Your task to perform on an android device: turn off location history Image 0: 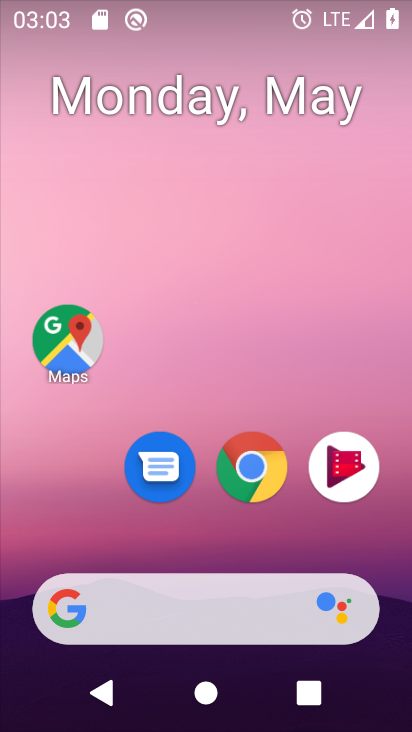
Step 0: drag from (254, 462) to (272, 63)
Your task to perform on an android device: turn off location history Image 1: 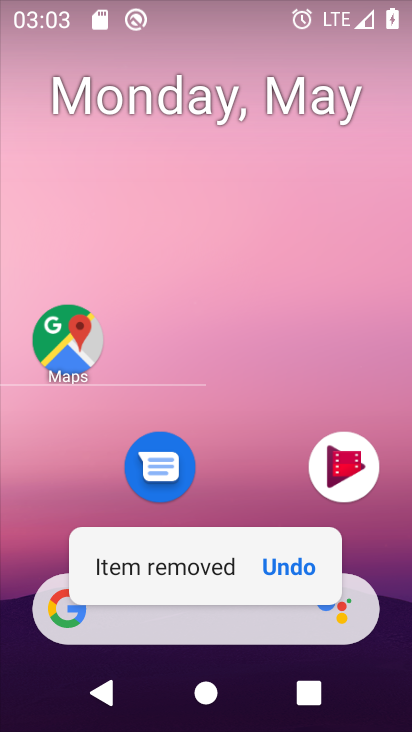
Step 1: click (232, 518)
Your task to perform on an android device: turn off location history Image 2: 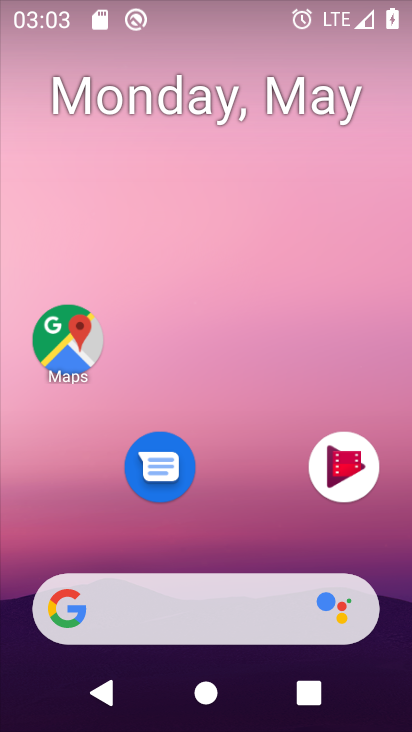
Step 2: click (245, 483)
Your task to perform on an android device: turn off location history Image 3: 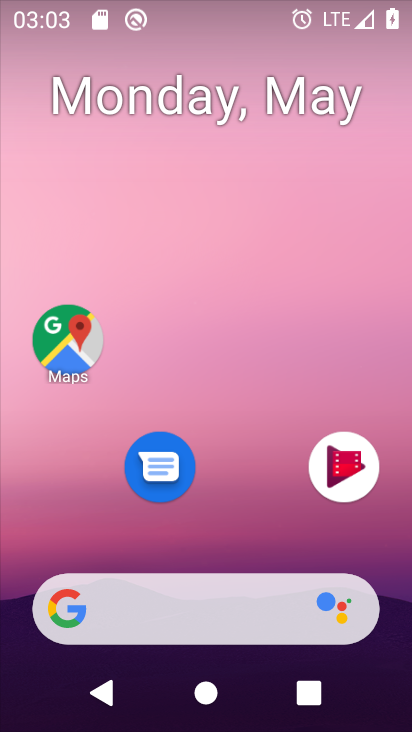
Step 3: drag from (256, 494) to (299, 82)
Your task to perform on an android device: turn off location history Image 4: 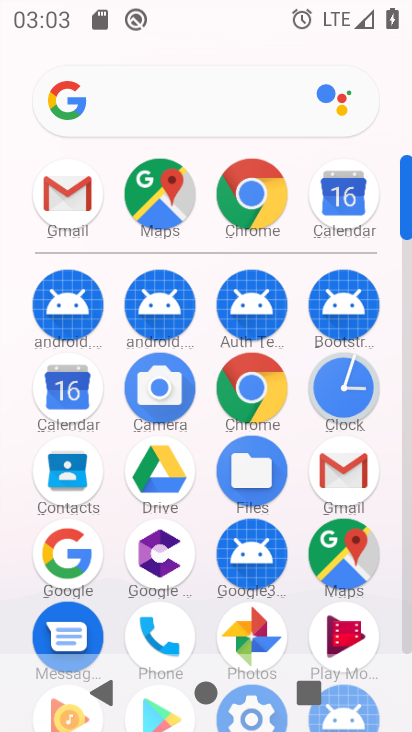
Step 4: drag from (224, 576) to (301, 166)
Your task to perform on an android device: turn off location history Image 5: 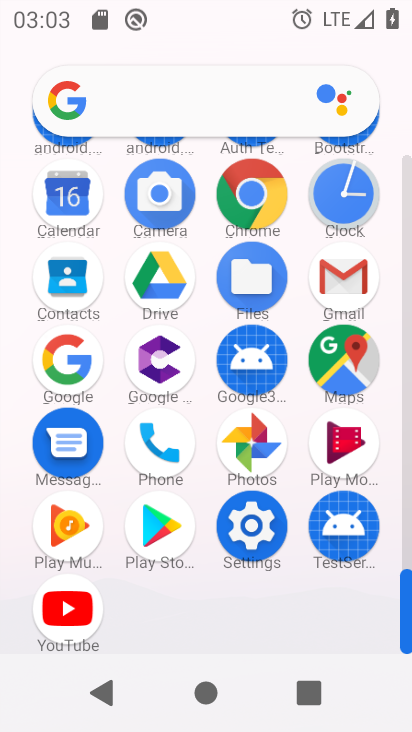
Step 5: click (249, 512)
Your task to perform on an android device: turn off location history Image 6: 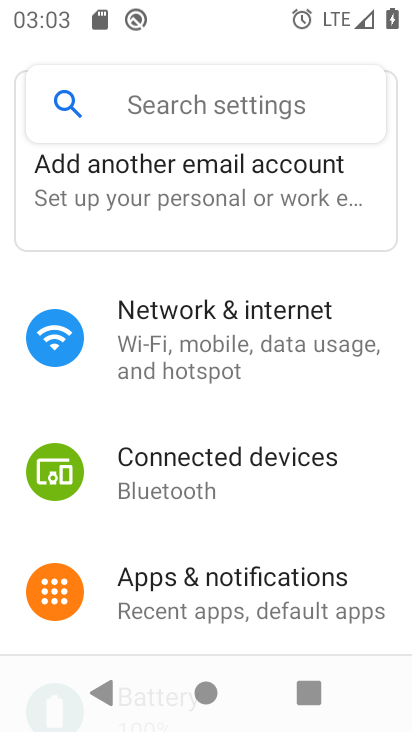
Step 6: drag from (277, 506) to (292, 206)
Your task to perform on an android device: turn off location history Image 7: 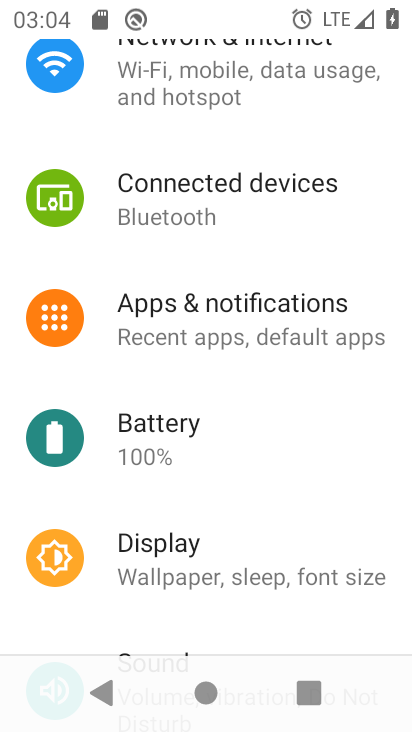
Step 7: drag from (259, 546) to (296, 194)
Your task to perform on an android device: turn off location history Image 8: 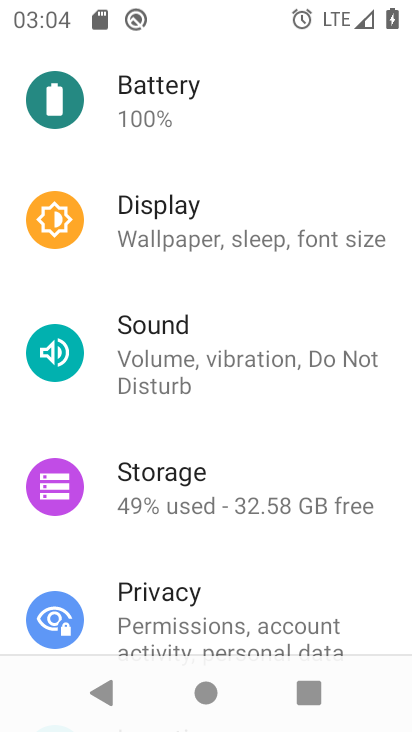
Step 8: drag from (211, 465) to (236, 195)
Your task to perform on an android device: turn off location history Image 9: 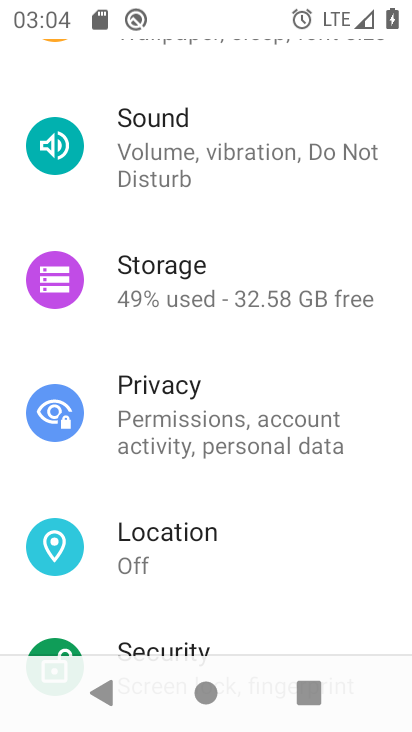
Step 9: click (191, 540)
Your task to perform on an android device: turn off location history Image 10: 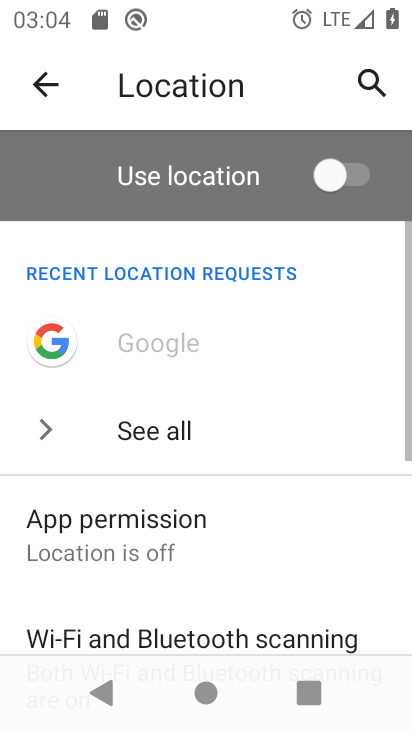
Step 10: drag from (219, 493) to (245, 205)
Your task to perform on an android device: turn off location history Image 11: 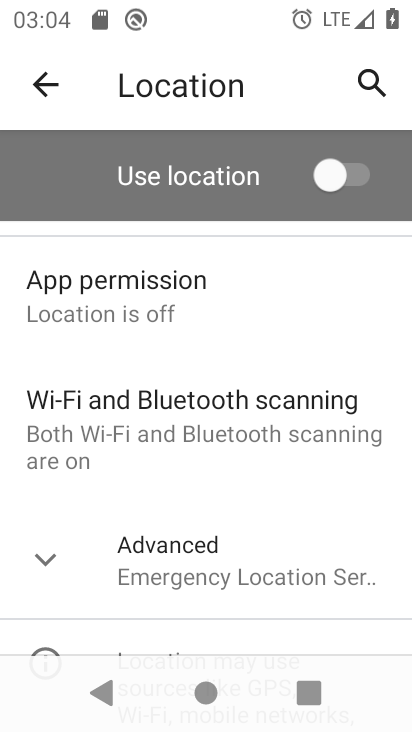
Step 11: click (163, 566)
Your task to perform on an android device: turn off location history Image 12: 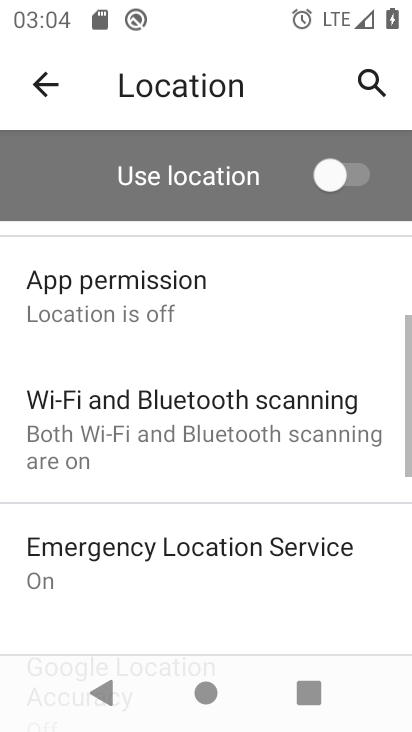
Step 12: drag from (213, 542) to (248, 283)
Your task to perform on an android device: turn off location history Image 13: 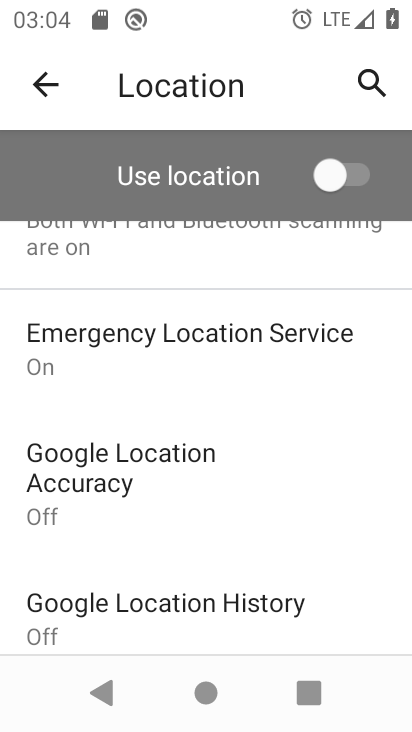
Step 13: click (172, 484)
Your task to perform on an android device: turn off location history Image 14: 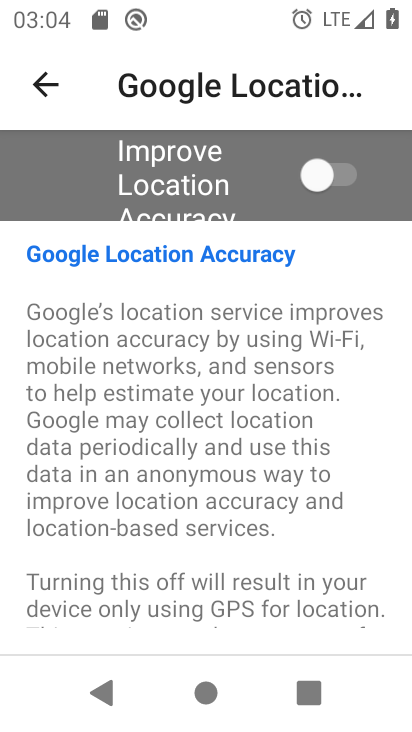
Step 14: task complete